Your task to perform on an android device: Open Google Image 0: 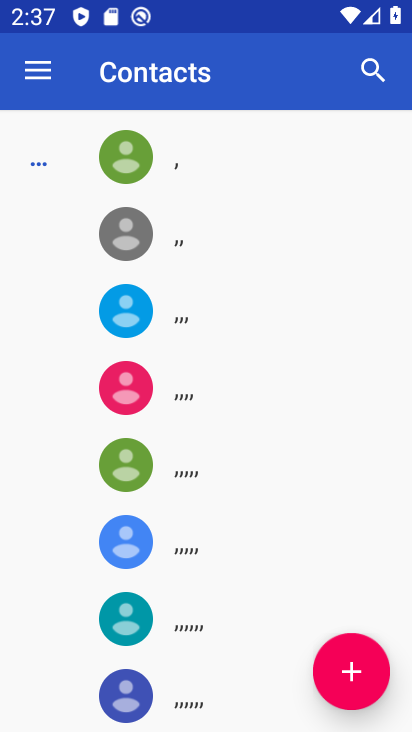
Step 0: press home button
Your task to perform on an android device: Open Google Image 1: 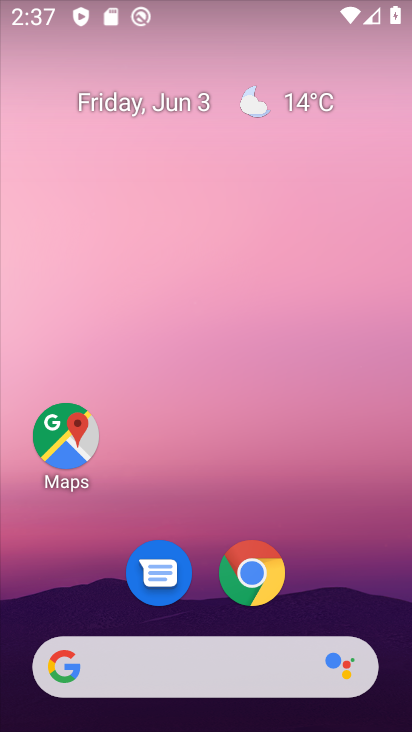
Step 1: drag from (251, 634) to (288, 13)
Your task to perform on an android device: Open Google Image 2: 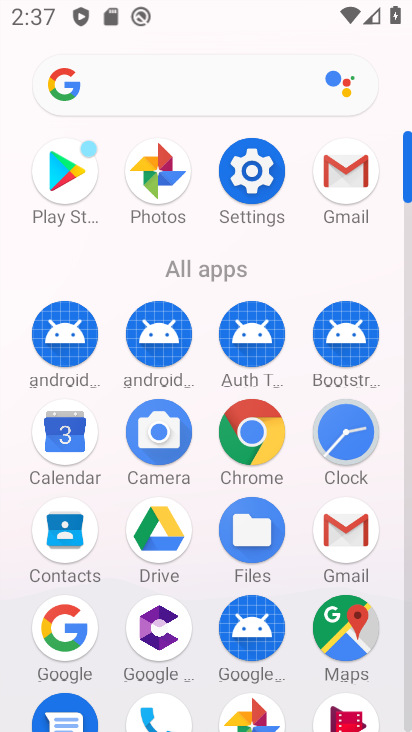
Step 2: click (250, 435)
Your task to perform on an android device: Open Google Image 3: 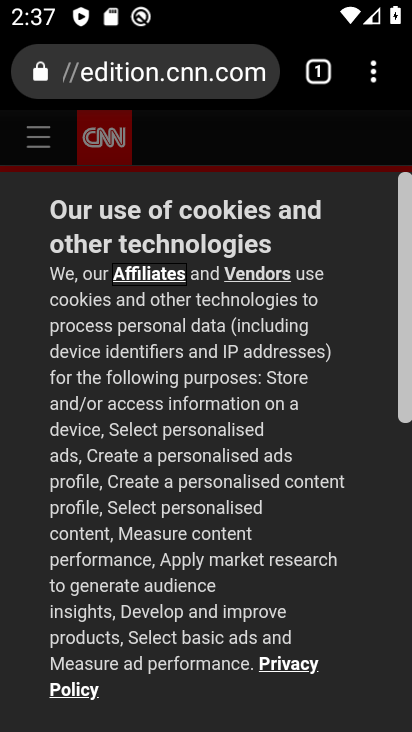
Step 3: task complete